Your task to perform on an android device: Go to Maps Image 0: 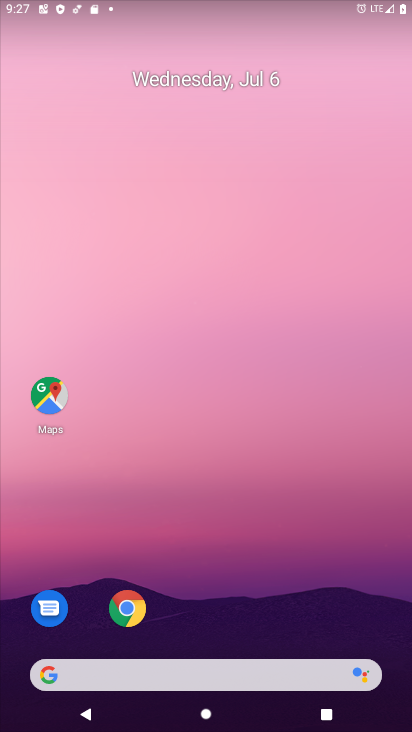
Step 0: drag from (391, 630) to (196, 33)
Your task to perform on an android device: Go to Maps Image 1: 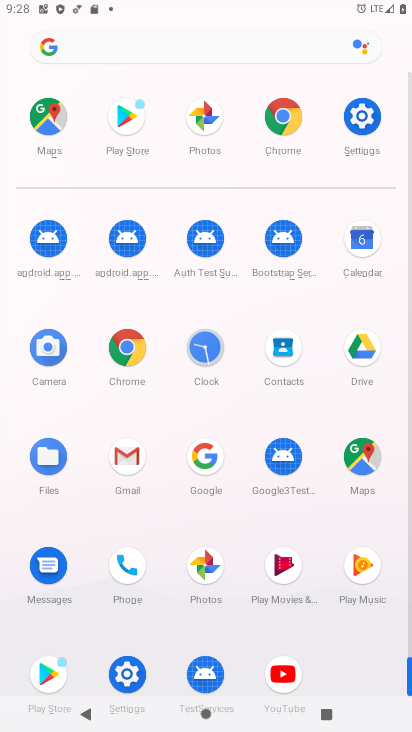
Step 1: click (357, 459)
Your task to perform on an android device: Go to Maps Image 2: 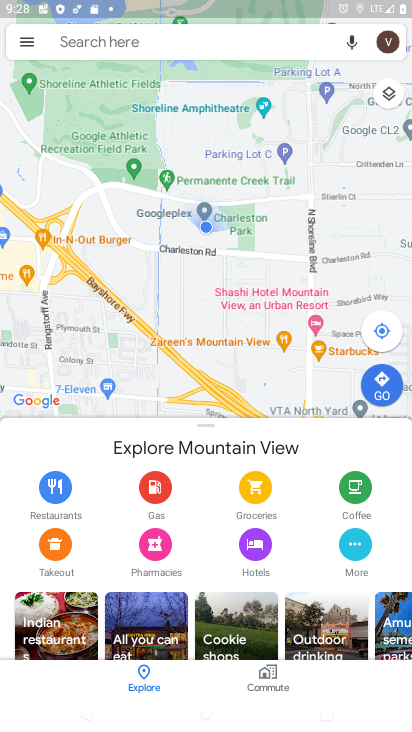
Step 2: task complete